Your task to perform on an android device: open app "Instagram" (install if not already installed) Image 0: 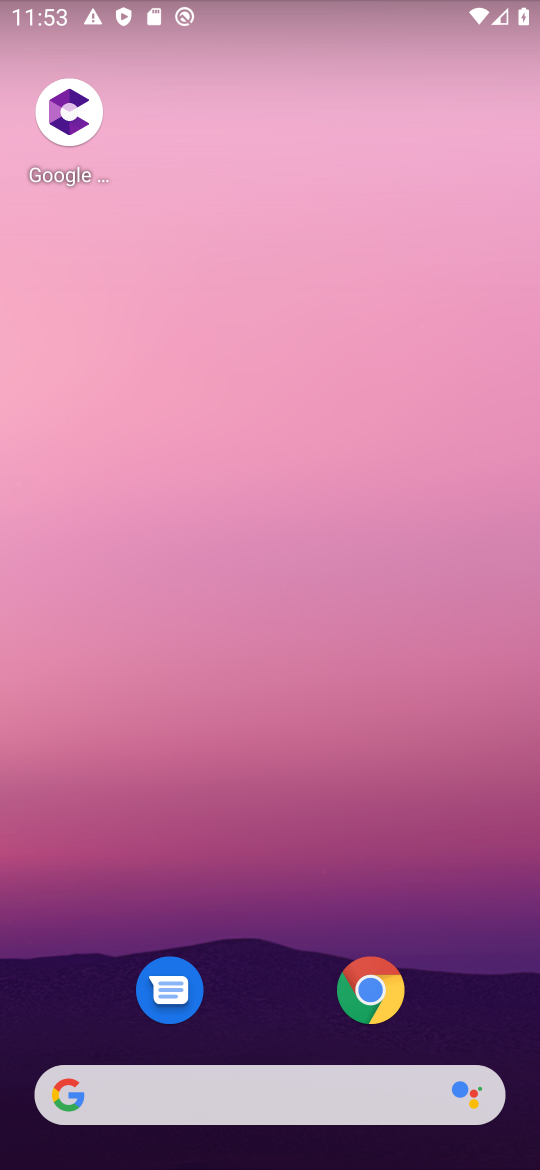
Step 0: drag from (293, 1058) to (285, 324)
Your task to perform on an android device: open app "Instagram" (install if not already installed) Image 1: 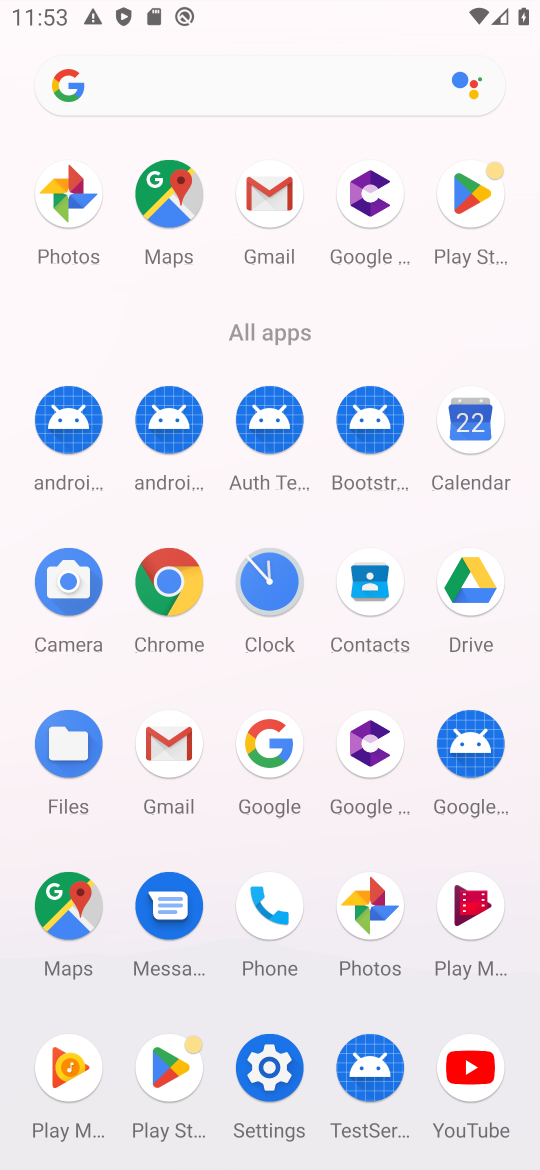
Step 1: click (455, 195)
Your task to perform on an android device: open app "Instagram" (install if not already installed) Image 2: 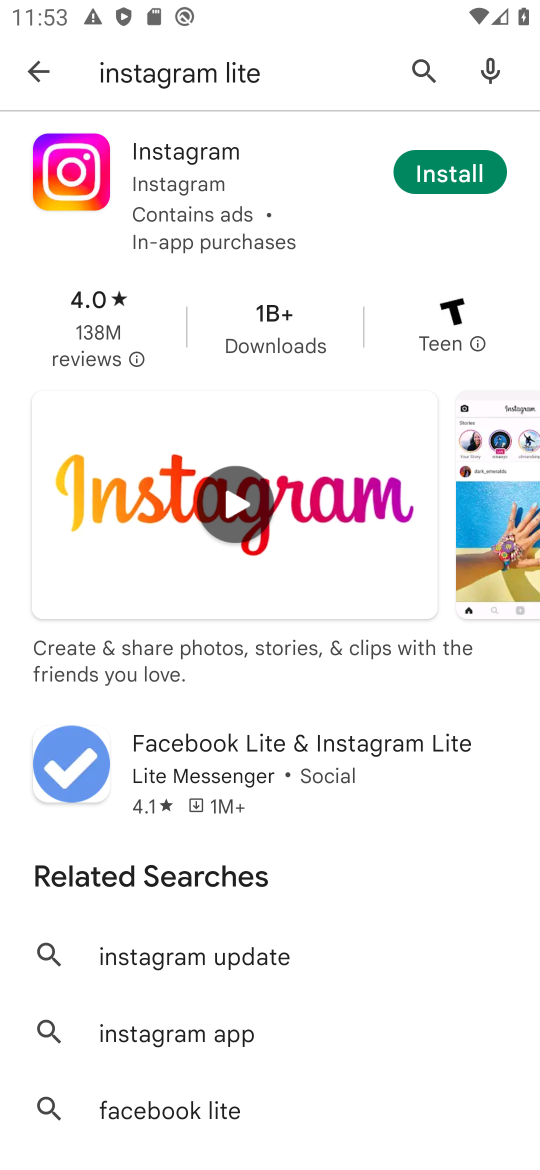
Step 2: click (466, 164)
Your task to perform on an android device: open app "Instagram" (install if not already installed) Image 3: 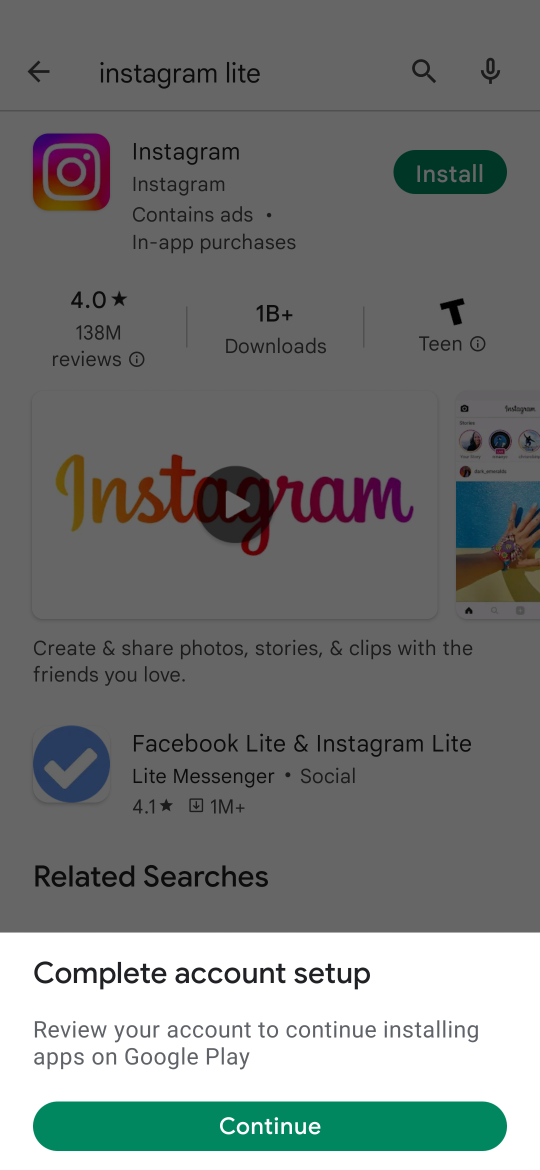
Step 3: click (279, 1103)
Your task to perform on an android device: open app "Instagram" (install if not already installed) Image 4: 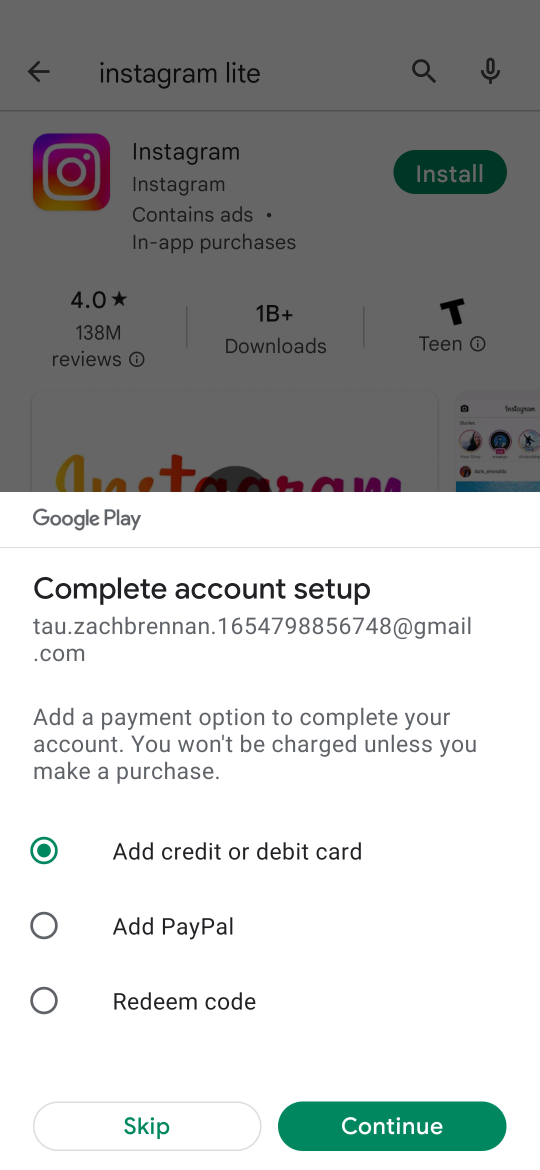
Step 4: click (157, 920)
Your task to perform on an android device: open app "Instagram" (install if not already installed) Image 5: 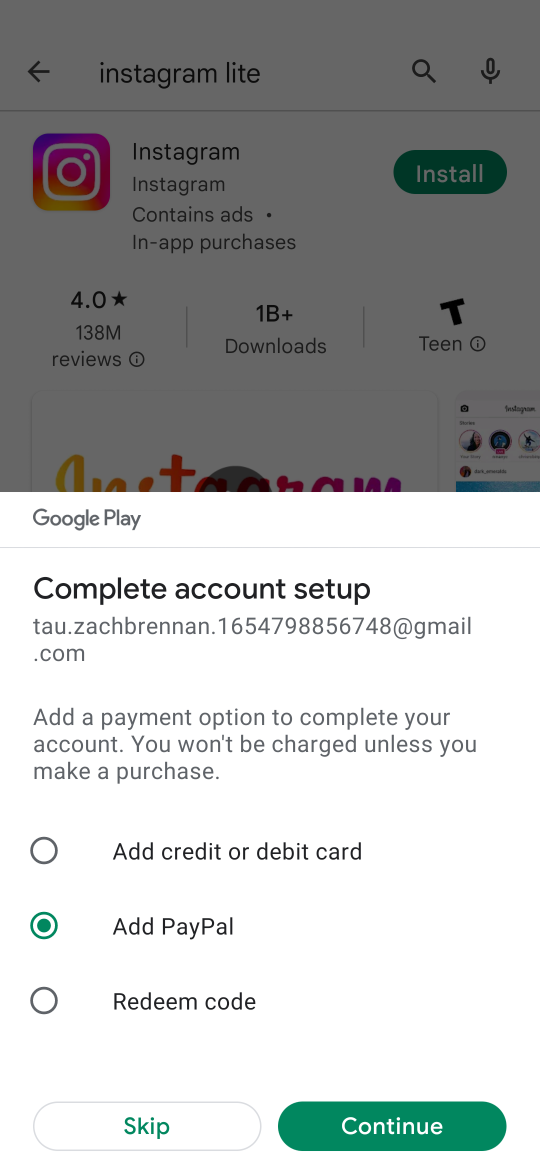
Step 5: task complete